Your task to perform on an android device: Open Google Chrome and open the bookmarks view Image 0: 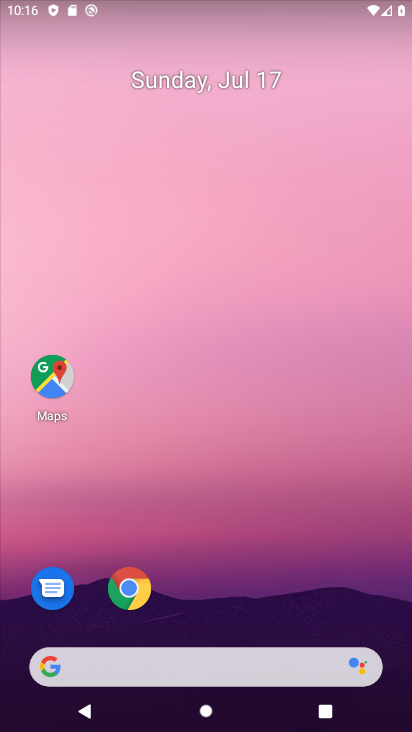
Step 0: click (122, 603)
Your task to perform on an android device: Open Google Chrome and open the bookmarks view Image 1: 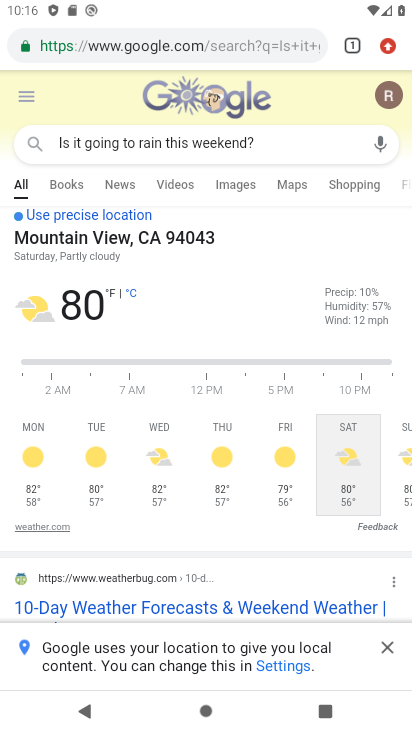
Step 1: drag from (391, 41) to (289, 233)
Your task to perform on an android device: Open Google Chrome and open the bookmarks view Image 2: 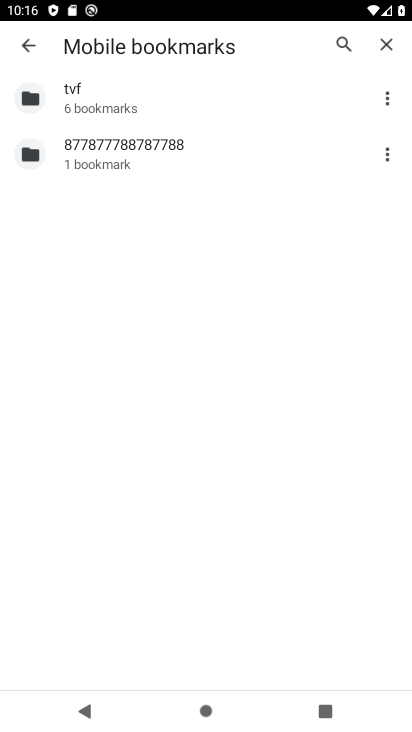
Step 2: click (174, 148)
Your task to perform on an android device: Open Google Chrome and open the bookmarks view Image 3: 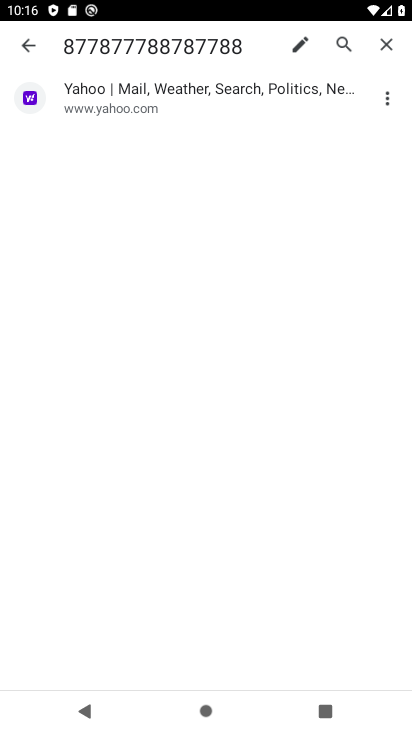
Step 3: click (188, 108)
Your task to perform on an android device: Open Google Chrome and open the bookmarks view Image 4: 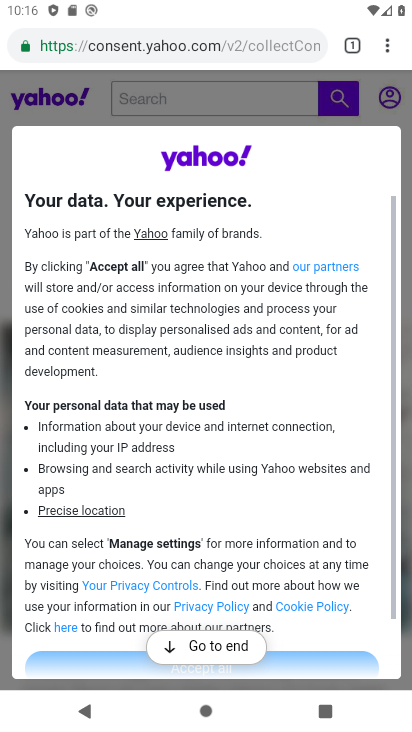
Step 4: task complete